Your task to perform on an android device: Search for custom wallets on Etsy. Image 0: 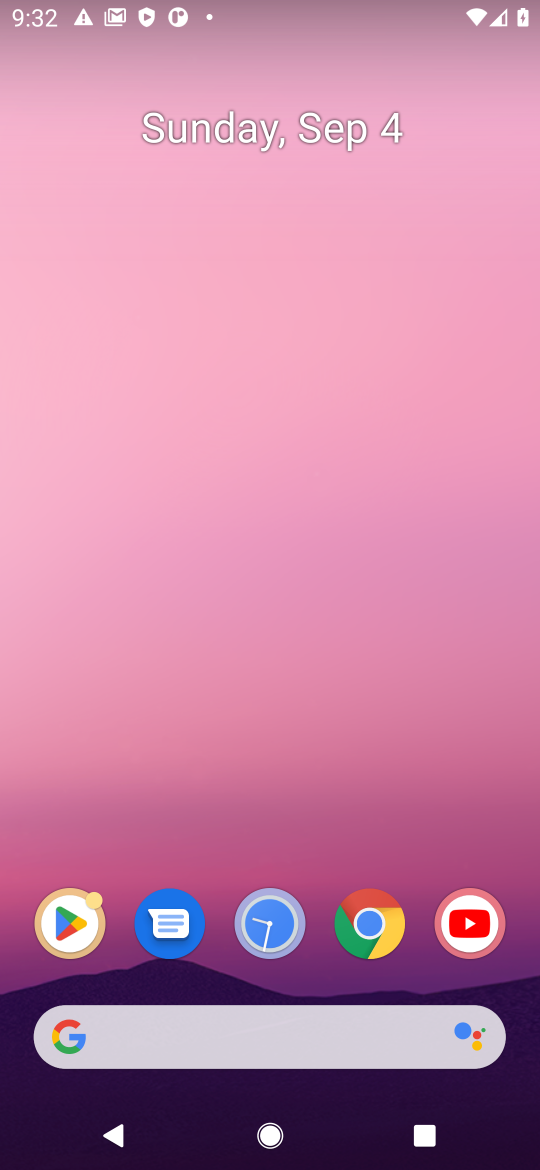
Step 0: press home button
Your task to perform on an android device: Search for custom wallets on Etsy. Image 1: 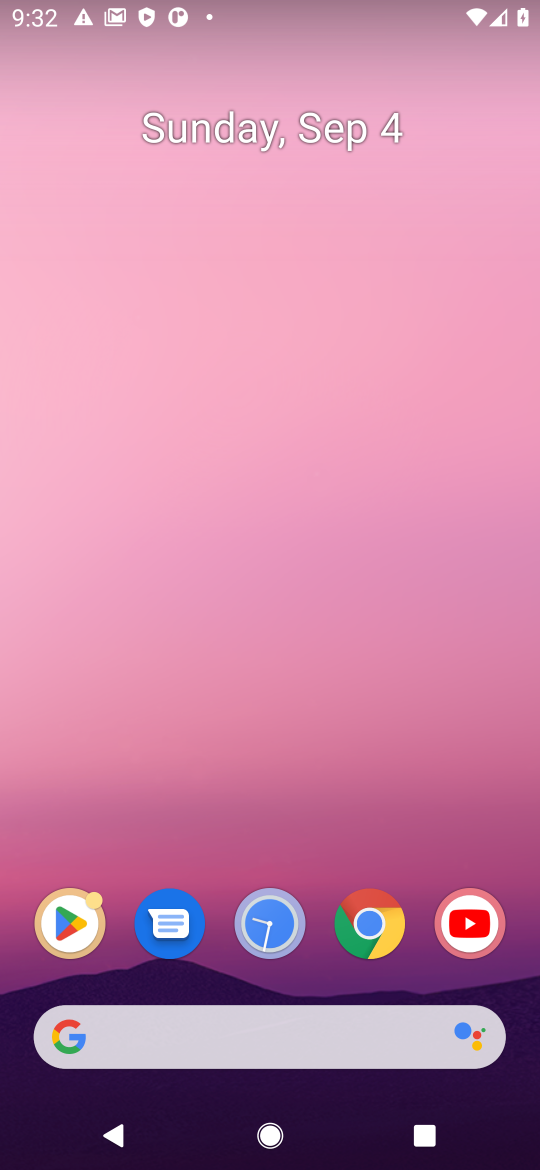
Step 1: click (370, 1041)
Your task to perform on an android device: Search for custom wallets on Etsy. Image 2: 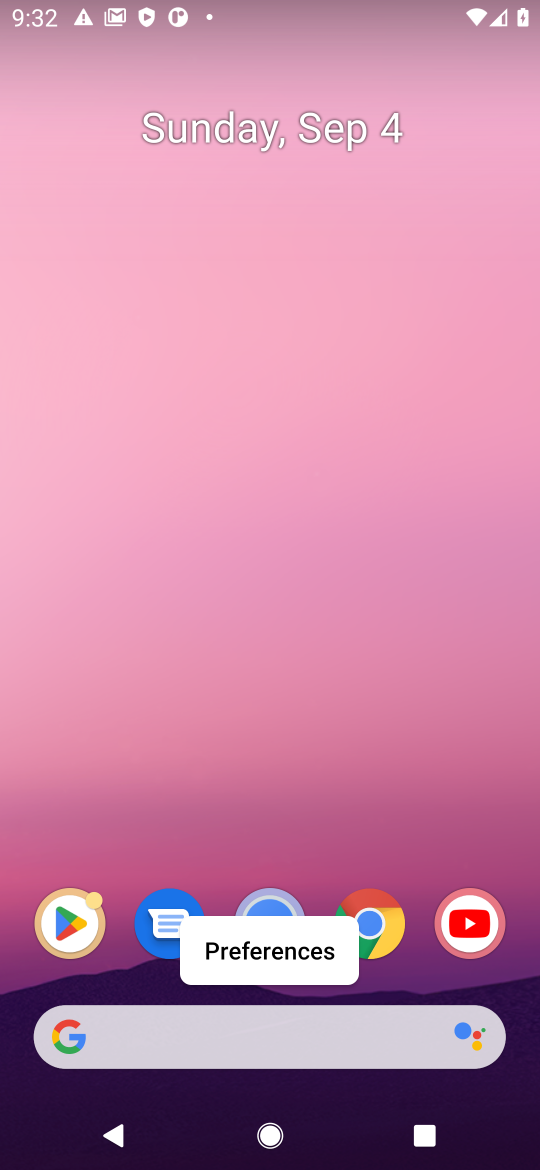
Step 2: click (370, 1041)
Your task to perform on an android device: Search for custom wallets on Etsy. Image 3: 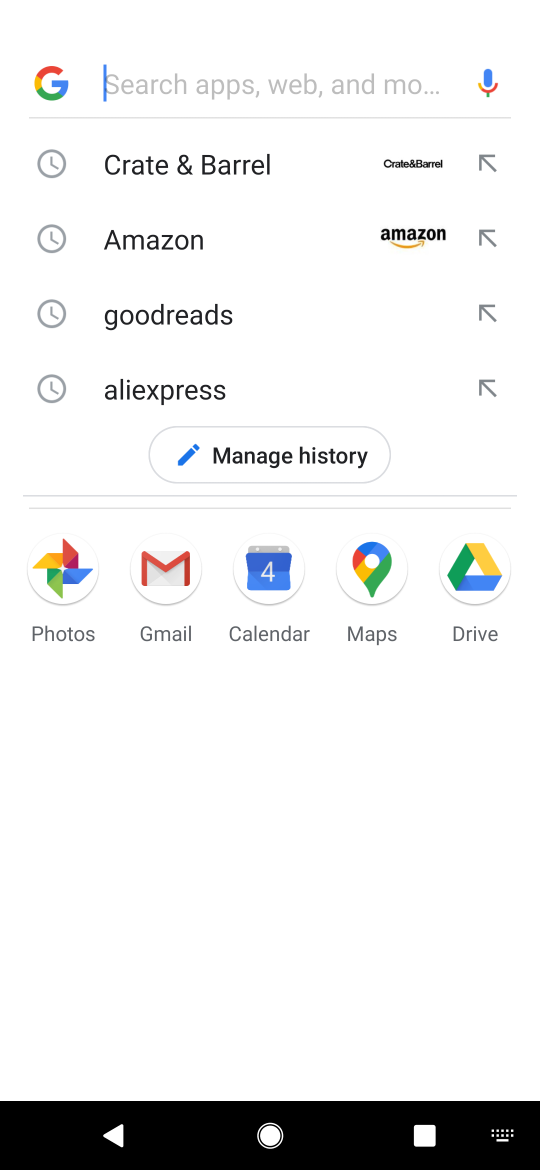
Step 3: press enter
Your task to perform on an android device: Search for custom wallets on Etsy. Image 4: 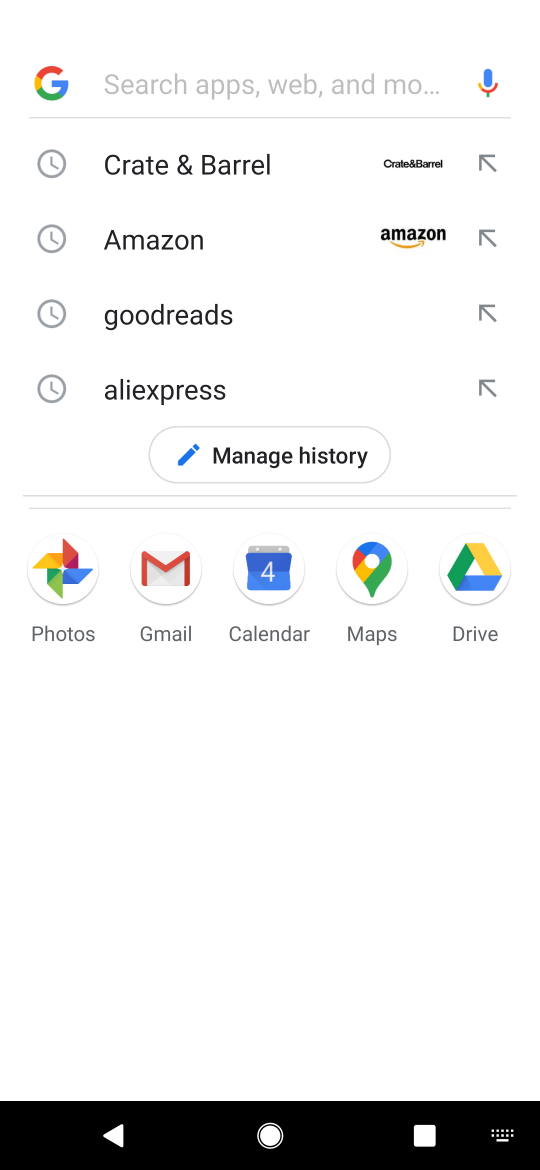
Step 4: type "etsy "
Your task to perform on an android device: Search for custom wallets on Etsy. Image 5: 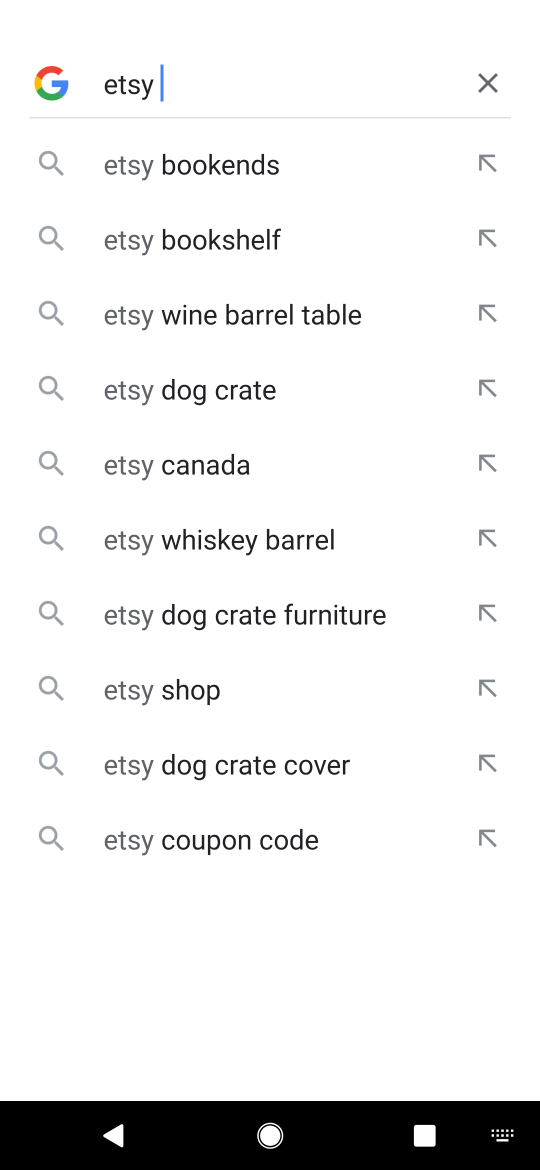
Step 5: press enter
Your task to perform on an android device: Search for custom wallets on Etsy. Image 6: 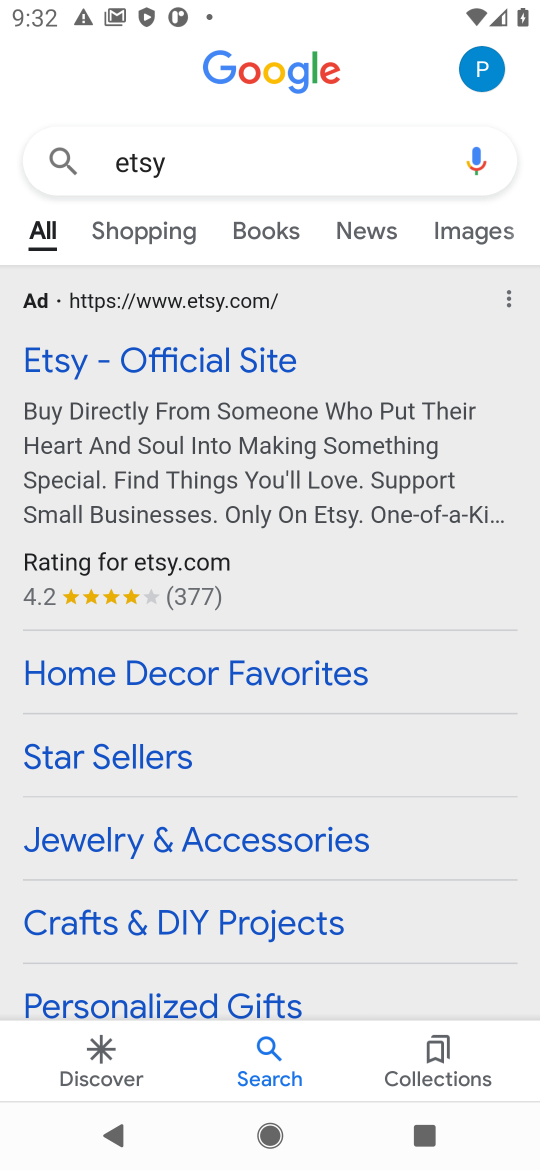
Step 6: click (228, 357)
Your task to perform on an android device: Search for custom wallets on Etsy. Image 7: 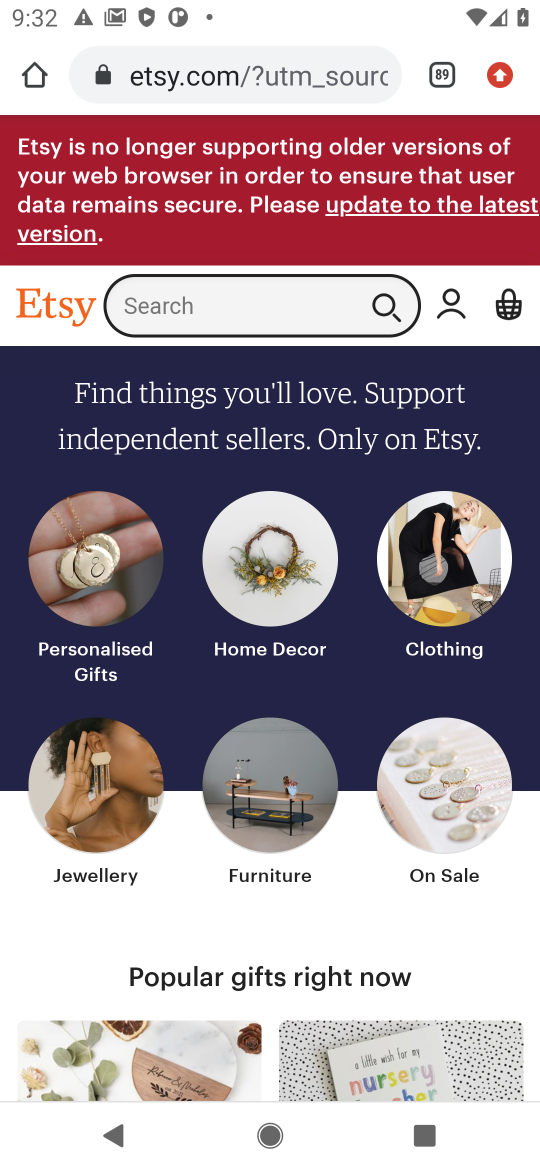
Step 7: click (245, 297)
Your task to perform on an android device: Search for custom wallets on Etsy. Image 8: 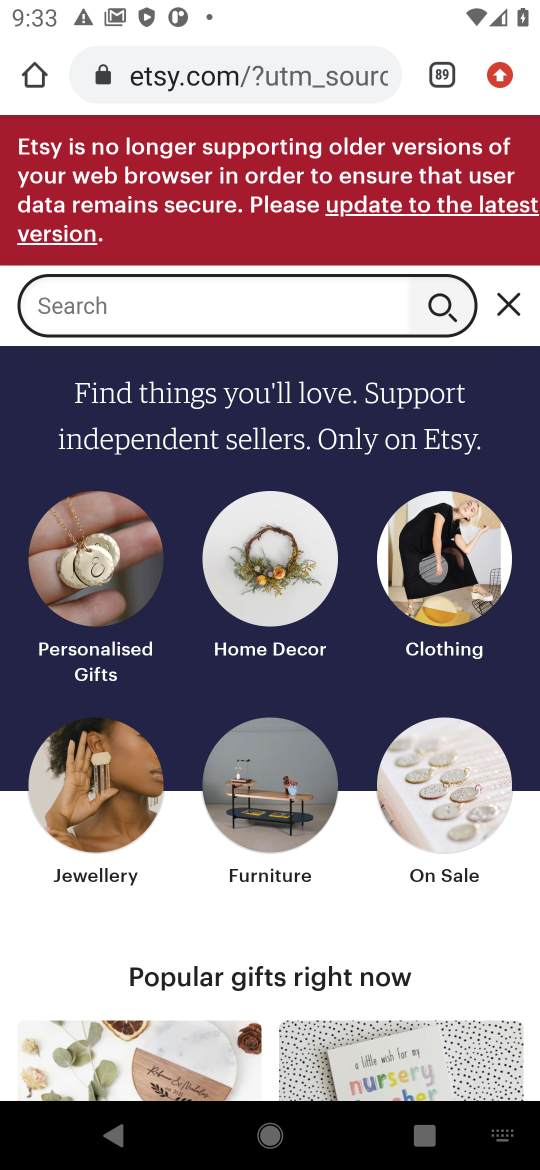
Step 8: type "custom wallets"
Your task to perform on an android device: Search for custom wallets on Etsy. Image 9: 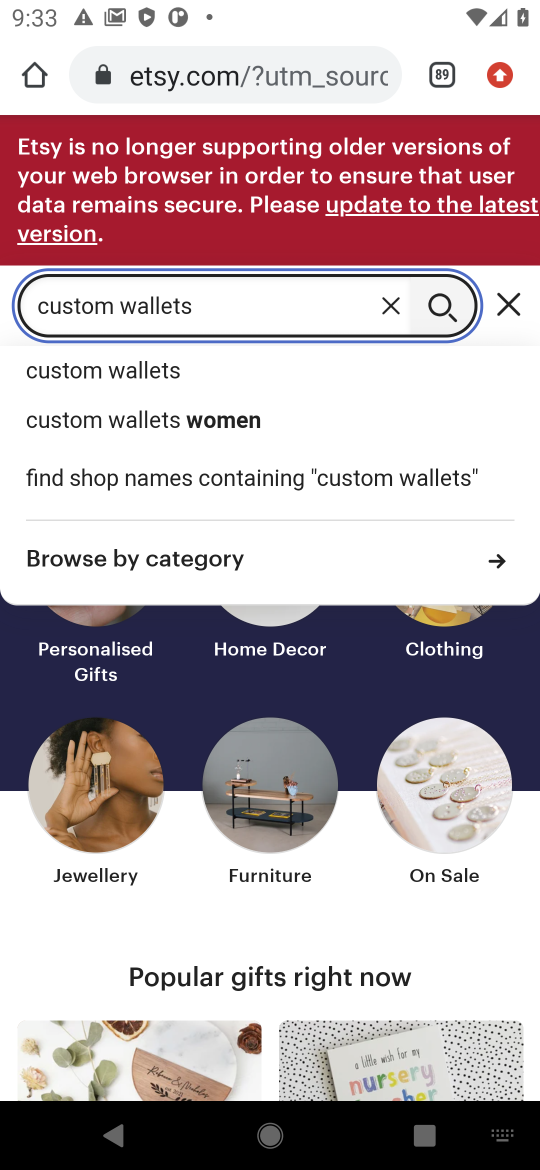
Step 9: click (203, 362)
Your task to perform on an android device: Search for custom wallets on Etsy. Image 10: 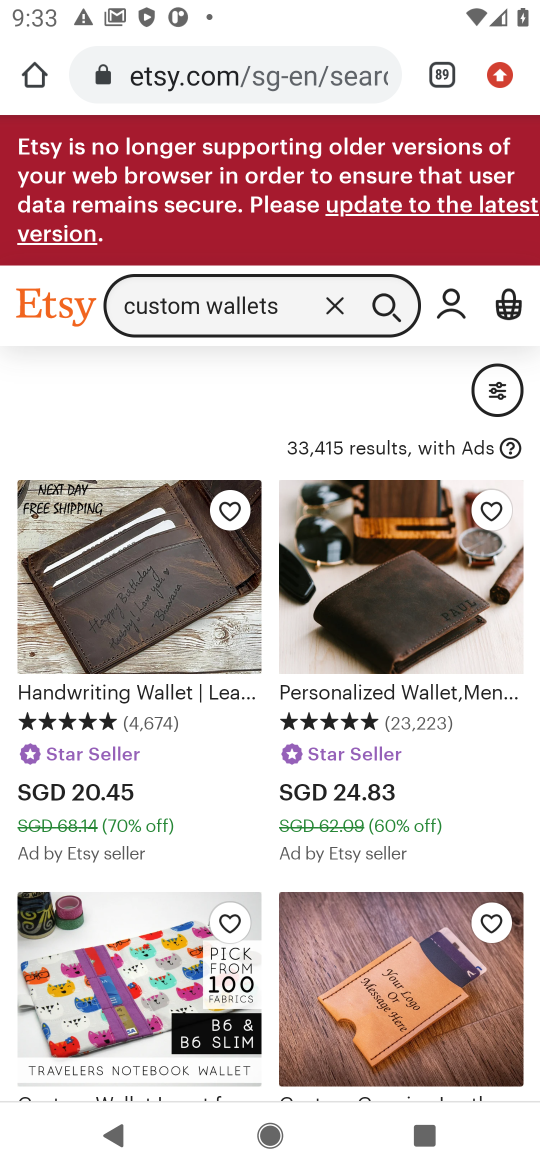
Step 10: task complete